Your task to perform on an android device: Open my contact list Image 0: 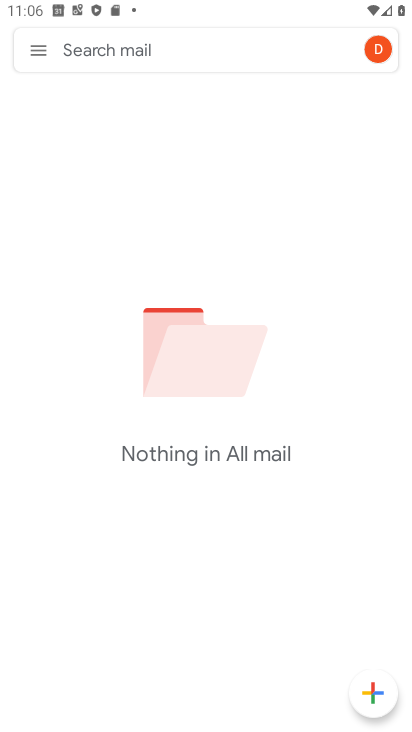
Step 0: press home button
Your task to perform on an android device: Open my contact list Image 1: 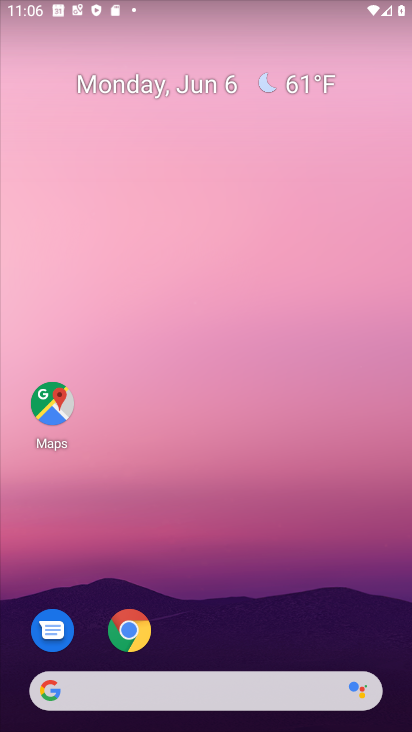
Step 1: drag from (351, 625) to (302, 182)
Your task to perform on an android device: Open my contact list Image 2: 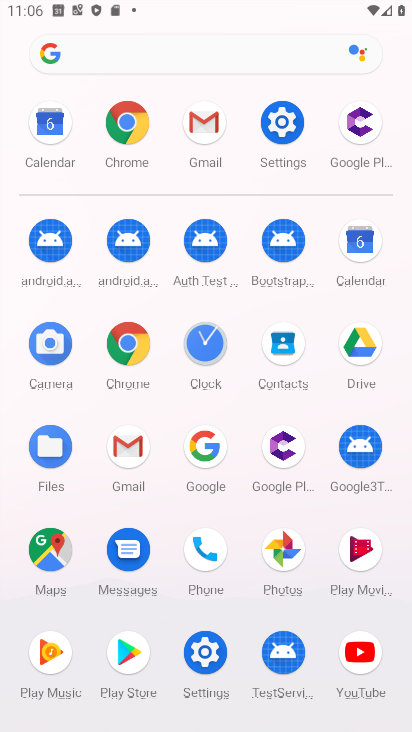
Step 2: click (287, 350)
Your task to perform on an android device: Open my contact list Image 3: 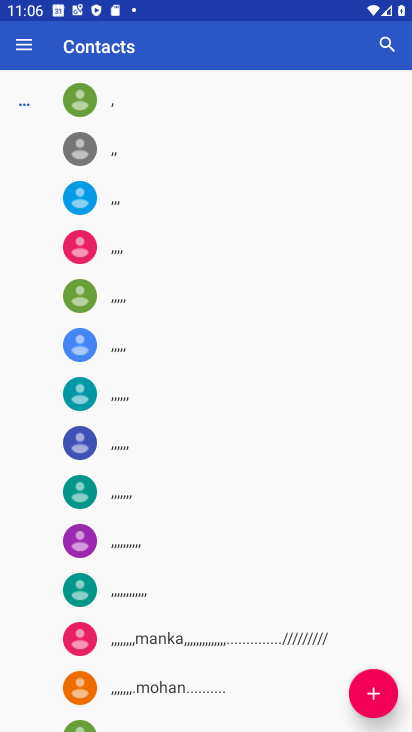
Step 3: task complete